Your task to perform on an android device: Open maps Image 0: 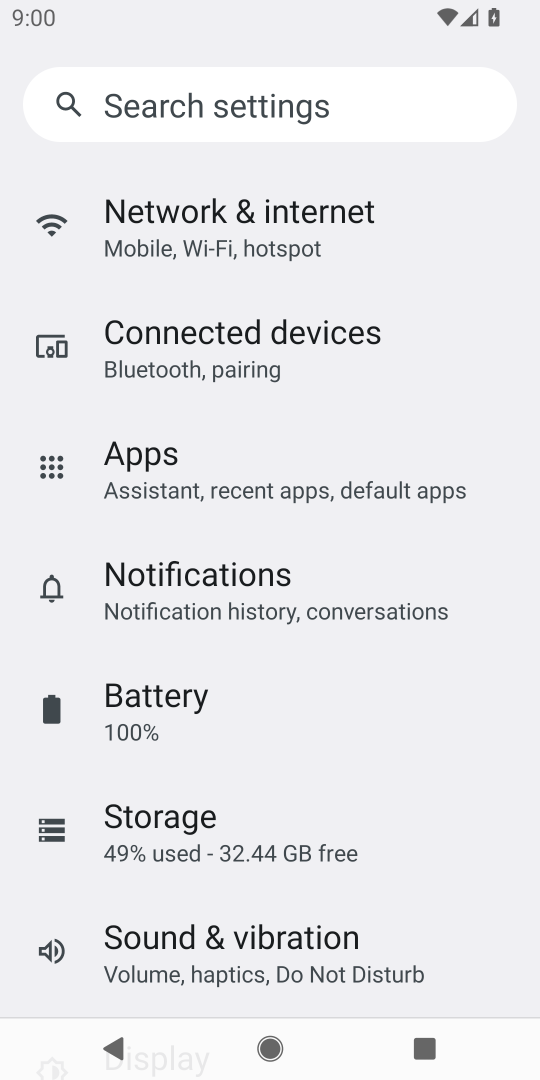
Step 0: press home button
Your task to perform on an android device: Open maps Image 1: 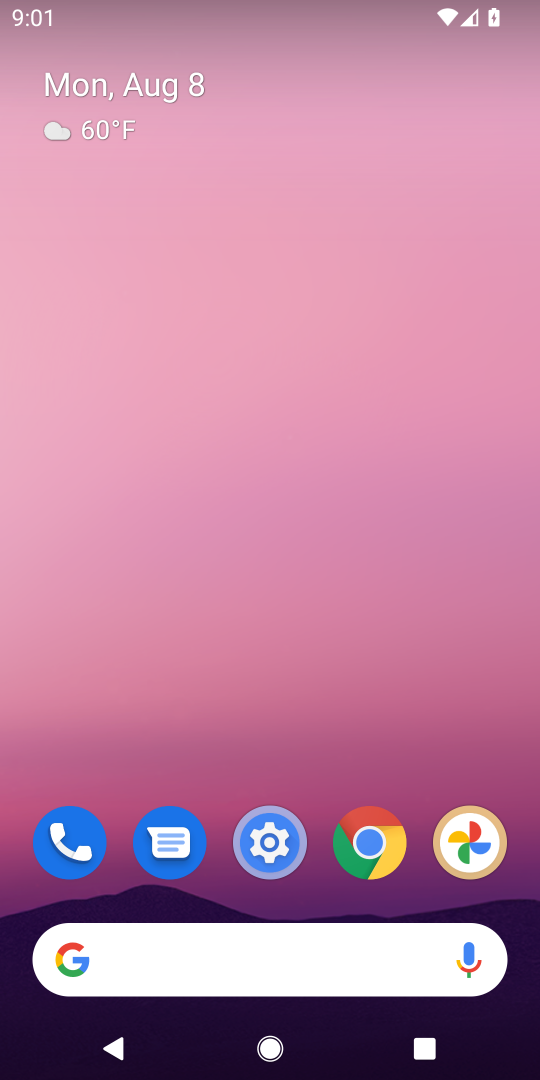
Step 1: drag from (333, 743) to (514, 4)
Your task to perform on an android device: Open maps Image 2: 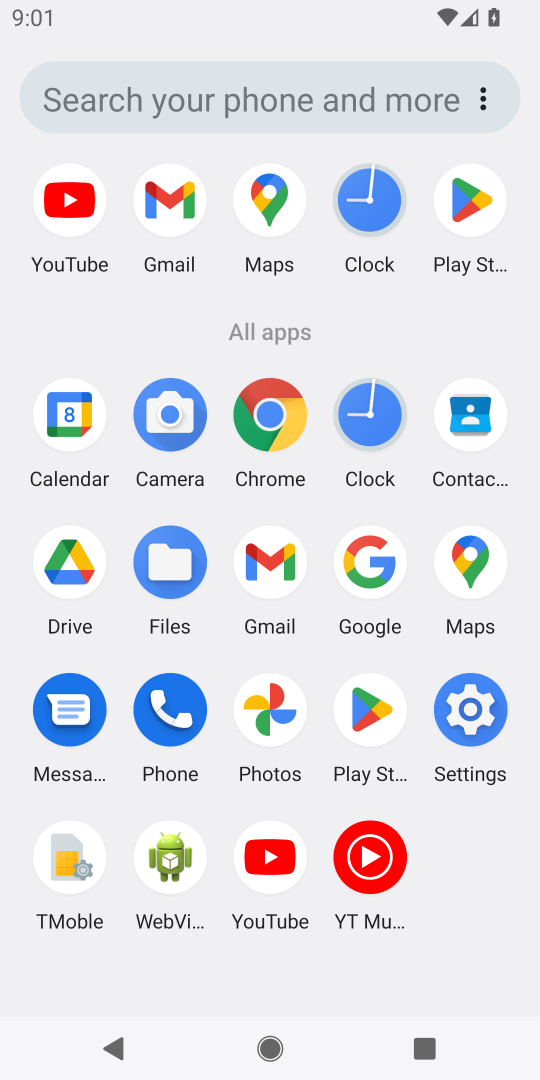
Step 2: click (474, 566)
Your task to perform on an android device: Open maps Image 3: 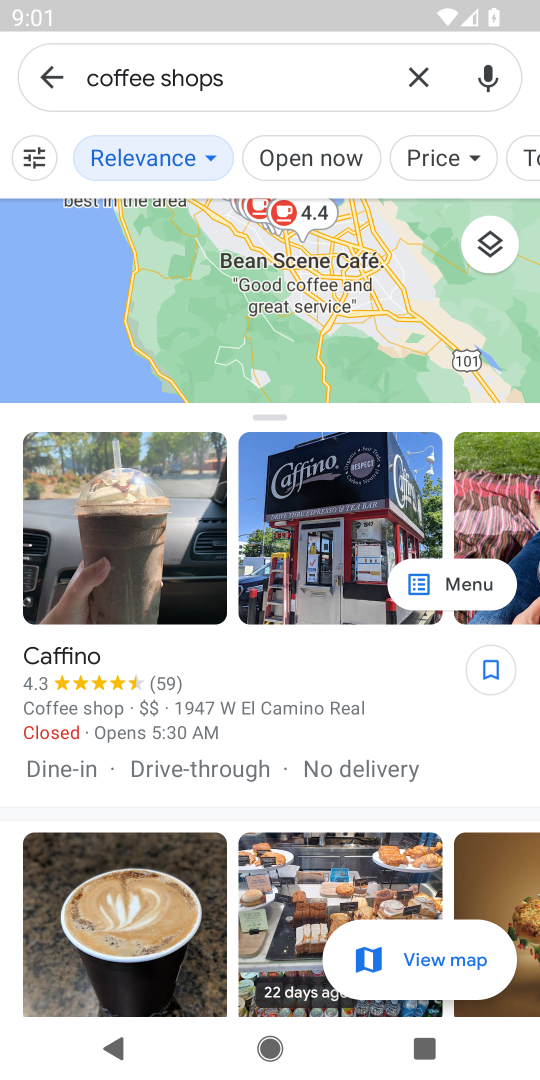
Step 3: task complete